Your task to perform on an android device: Go to privacy settings Image 0: 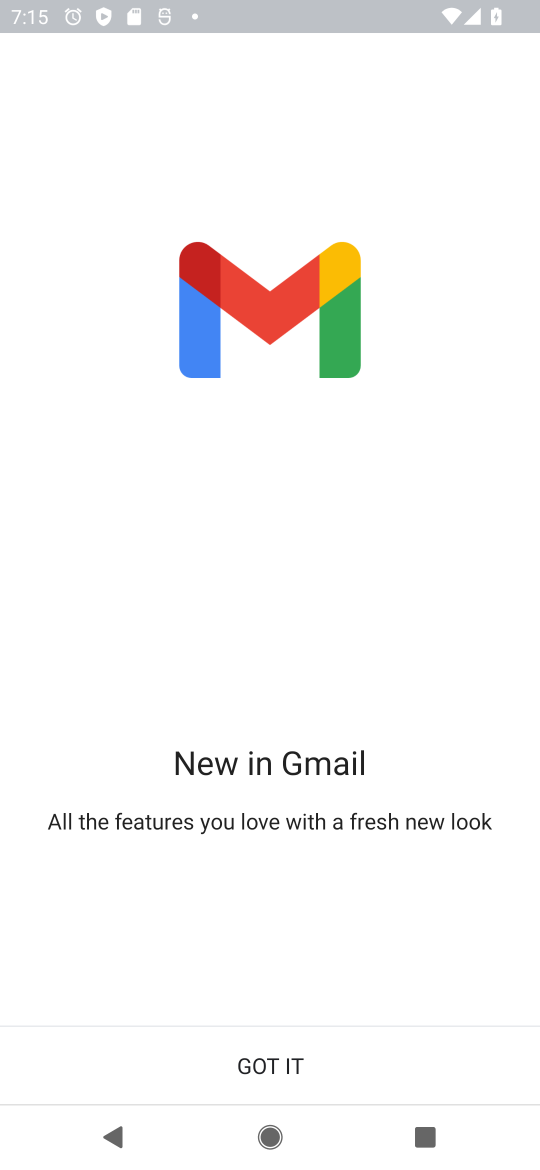
Step 0: press home button
Your task to perform on an android device: Go to privacy settings Image 1: 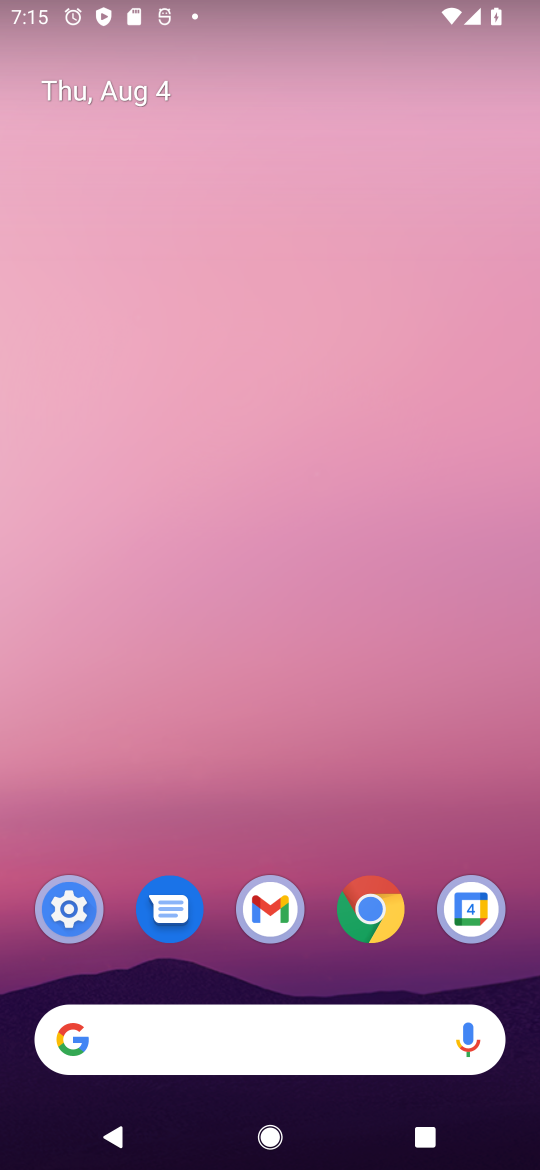
Step 1: drag from (318, 831) to (369, 54)
Your task to perform on an android device: Go to privacy settings Image 2: 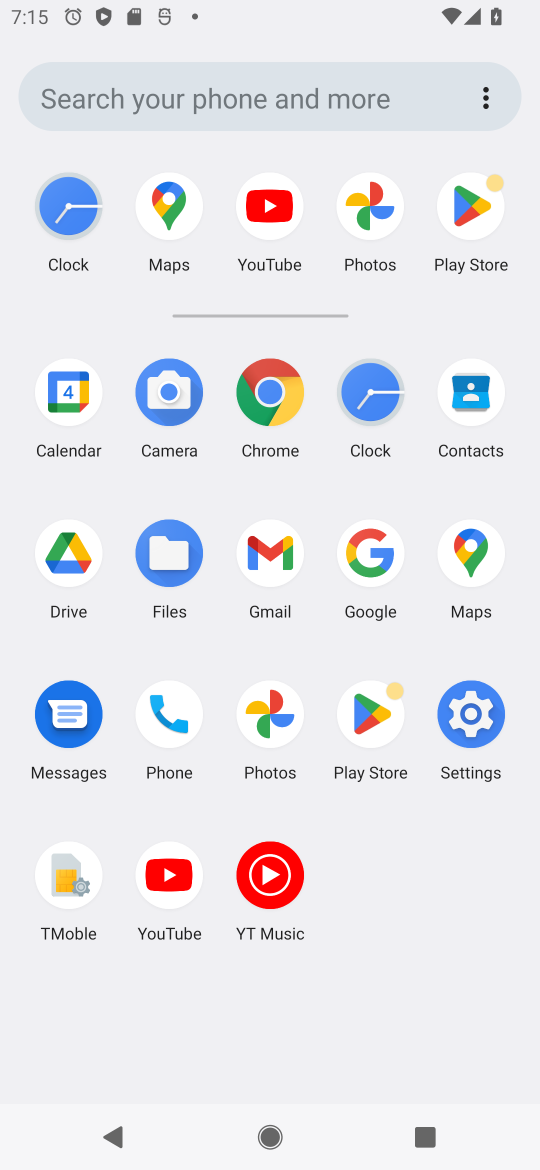
Step 2: click (474, 714)
Your task to perform on an android device: Go to privacy settings Image 3: 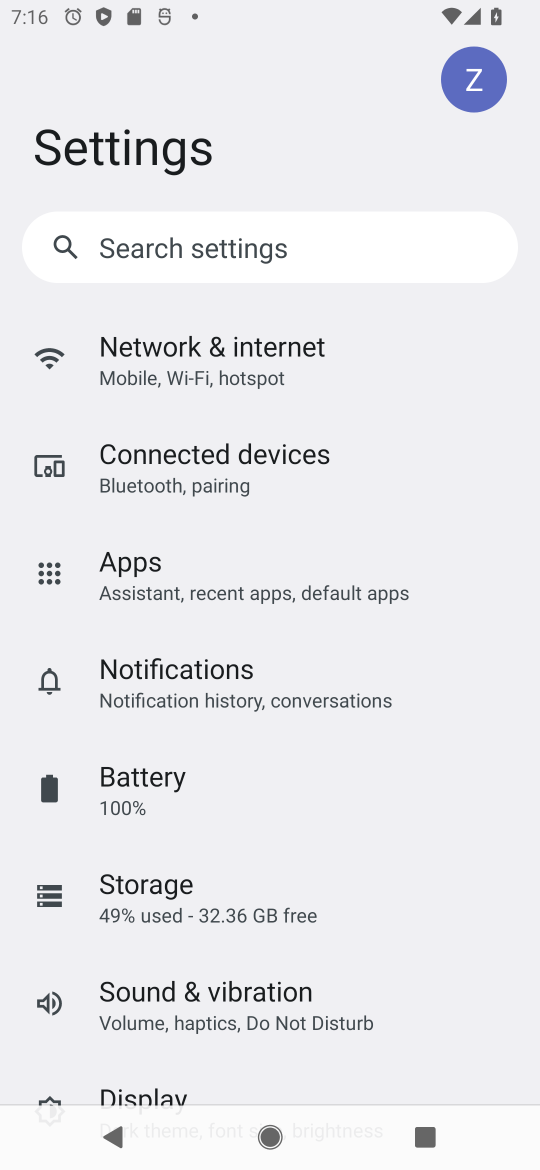
Step 3: drag from (217, 821) to (258, 329)
Your task to perform on an android device: Go to privacy settings Image 4: 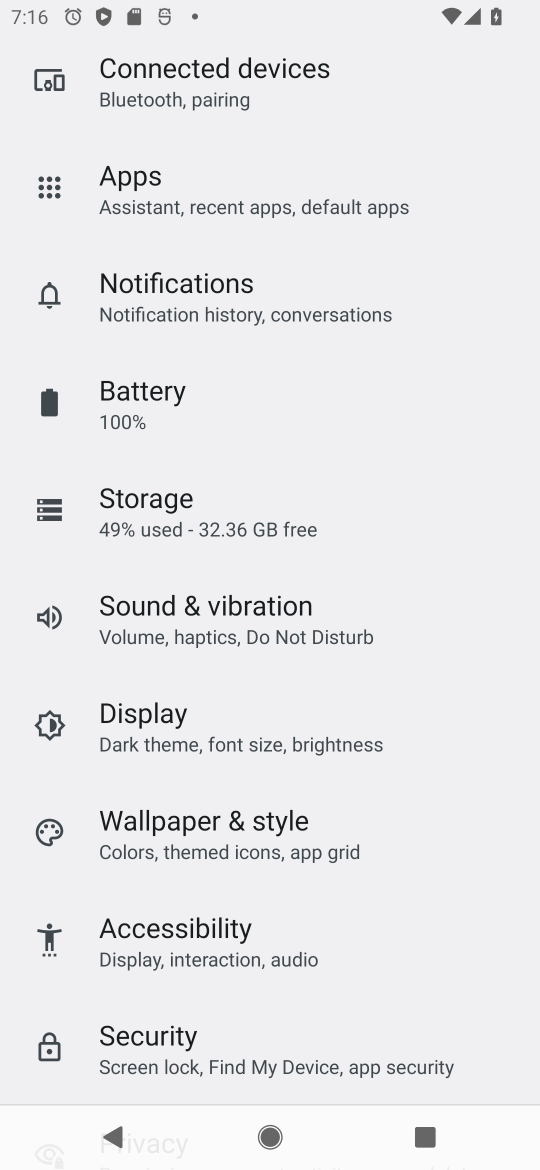
Step 4: drag from (328, 837) to (350, 282)
Your task to perform on an android device: Go to privacy settings Image 5: 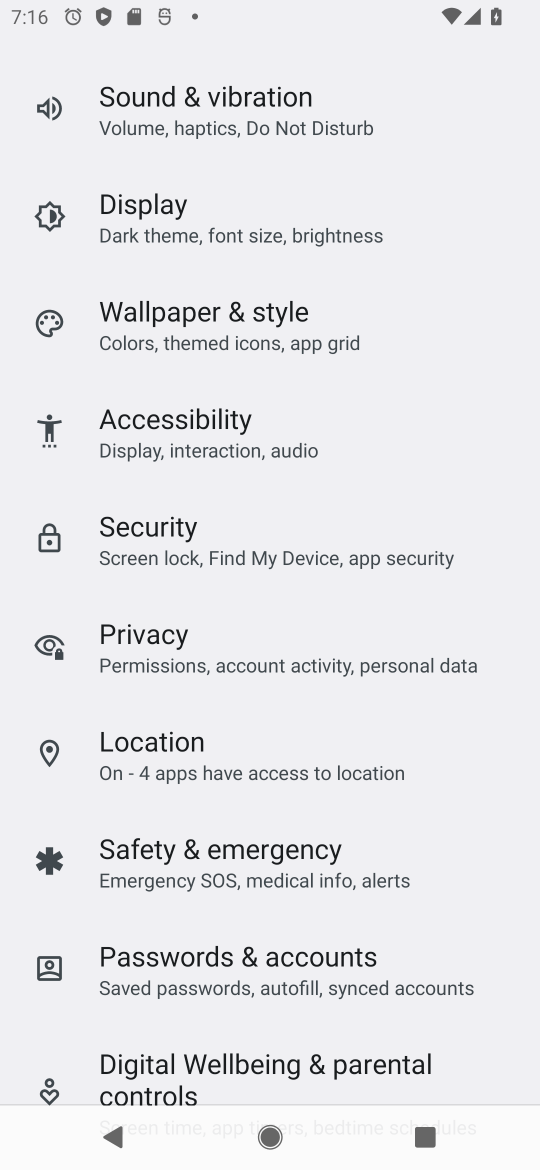
Step 5: click (197, 660)
Your task to perform on an android device: Go to privacy settings Image 6: 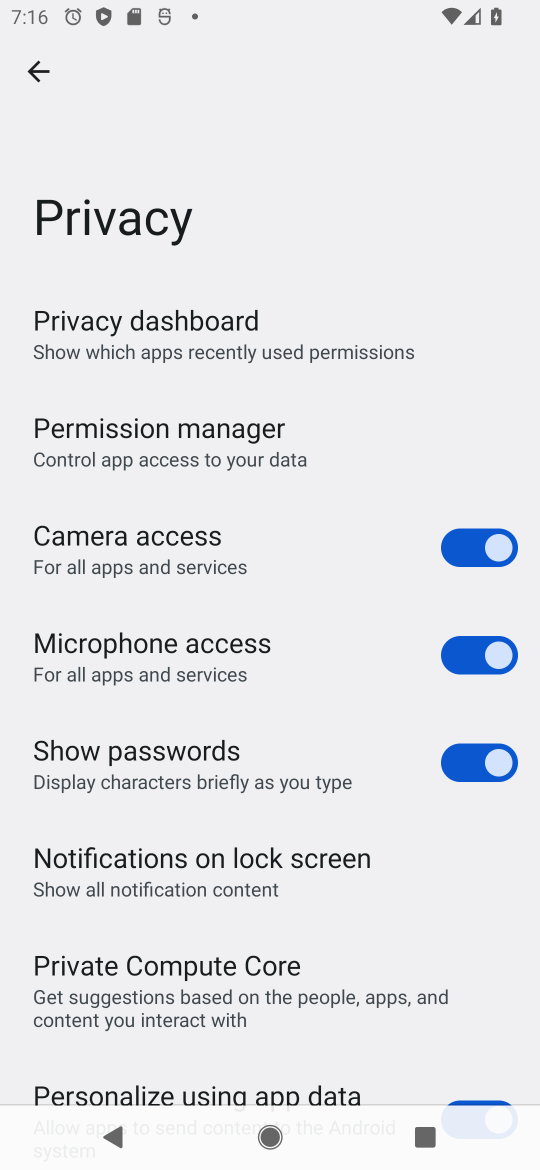
Step 6: task complete